Your task to perform on an android device: Go to internet settings Image 0: 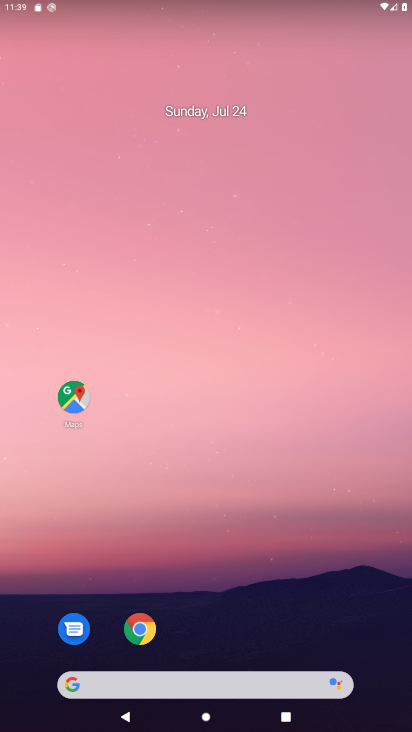
Step 0: drag from (232, 561) to (247, 33)
Your task to perform on an android device: Go to internet settings Image 1: 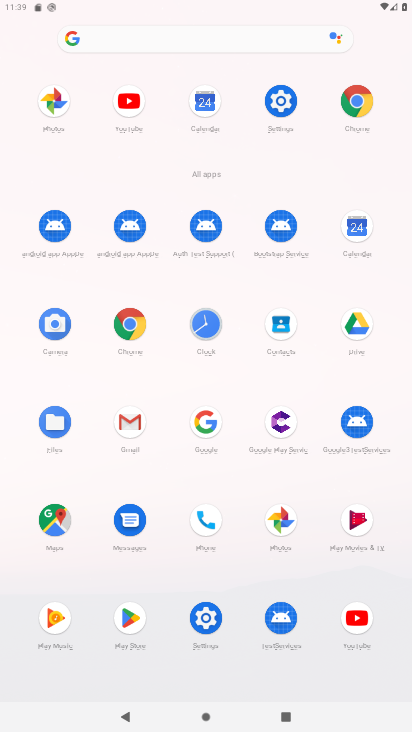
Step 1: click (209, 623)
Your task to perform on an android device: Go to internet settings Image 2: 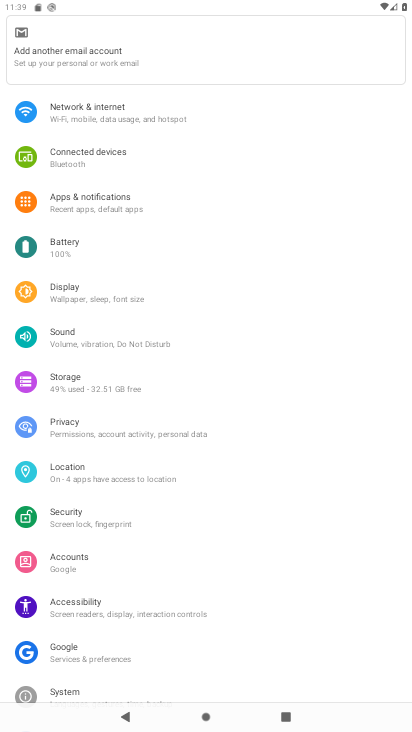
Step 2: click (128, 112)
Your task to perform on an android device: Go to internet settings Image 3: 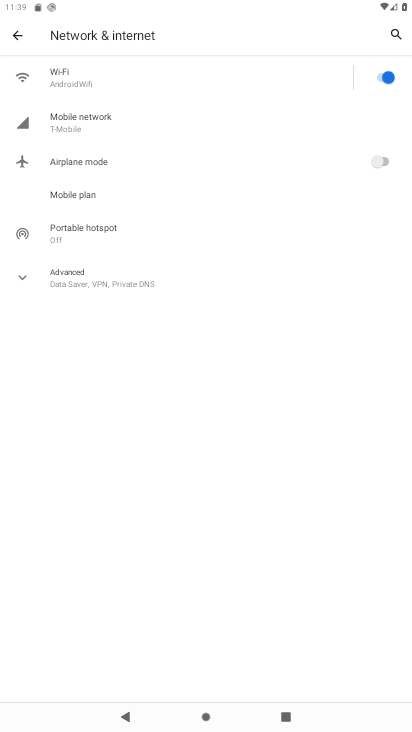
Step 3: task complete